Your task to perform on an android device: What's the weather today? Image 0: 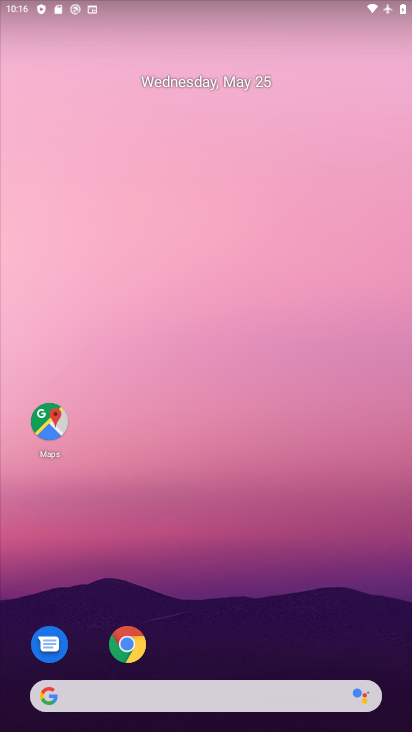
Step 0: drag from (223, 602) to (315, 109)
Your task to perform on an android device: What's the weather today? Image 1: 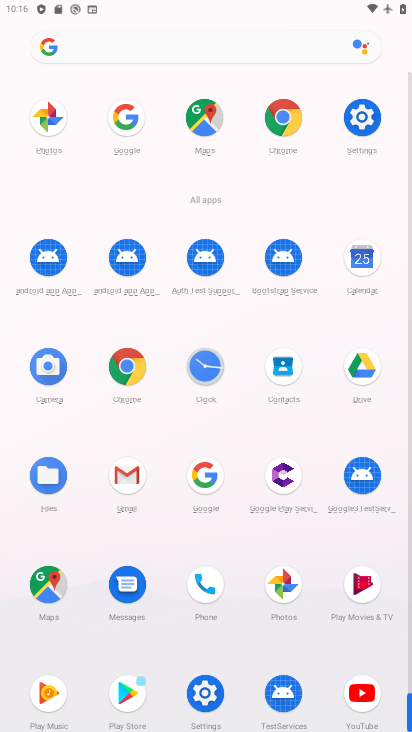
Step 1: click (207, 477)
Your task to perform on an android device: What's the weather today? Image 2: 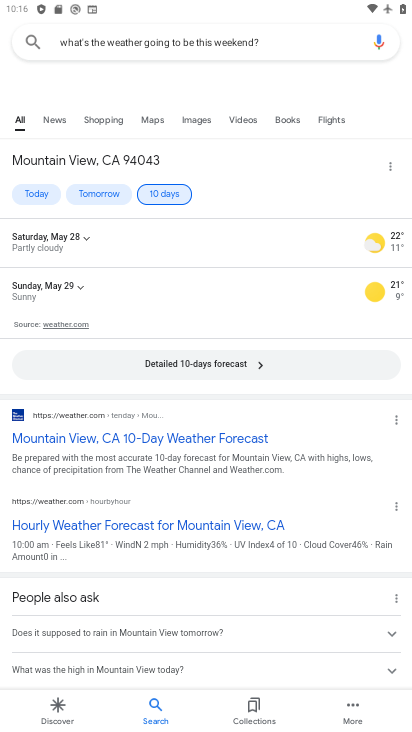
Step 2: click (271, 37)
Your task to perform on an android device: What's the weather today? Image 3: 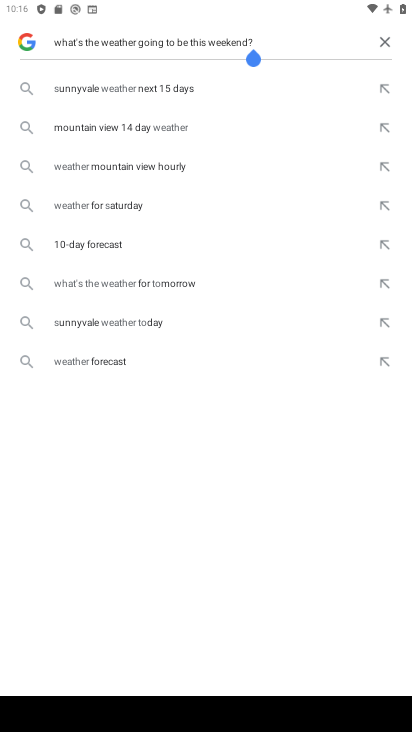
Step 3: click (377, 39)
Your task to perform on an android device: What's the weather today? Image 4: 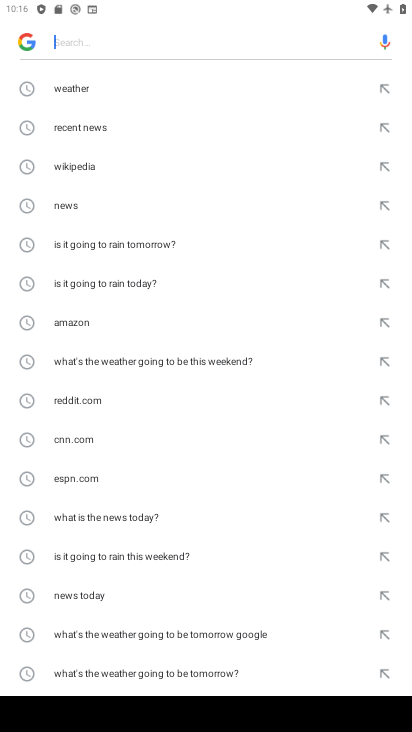
Step 4: click (90, 95)
Your task to perform on an android device: What's the weather today? Image 5: 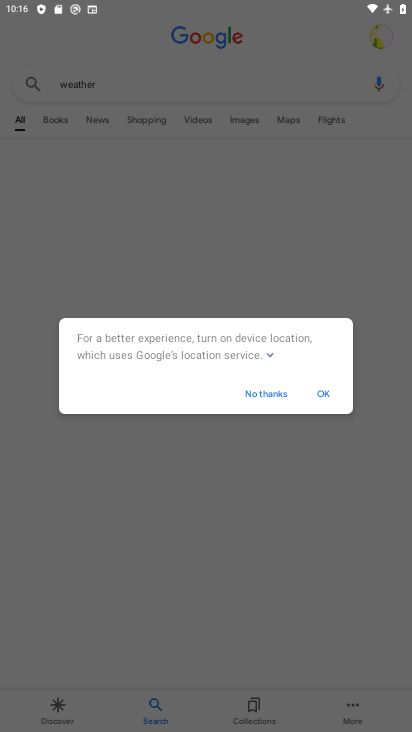
Step 5: click (264, 402)
Your task to perform on an android device: What's the weather today? Image 6: 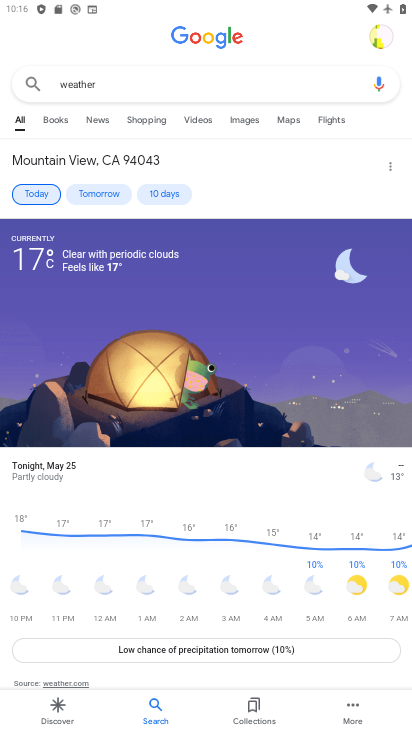
Step 6: task complete